Your task to perform on an android device: Go to Yahoo.com Image 0: 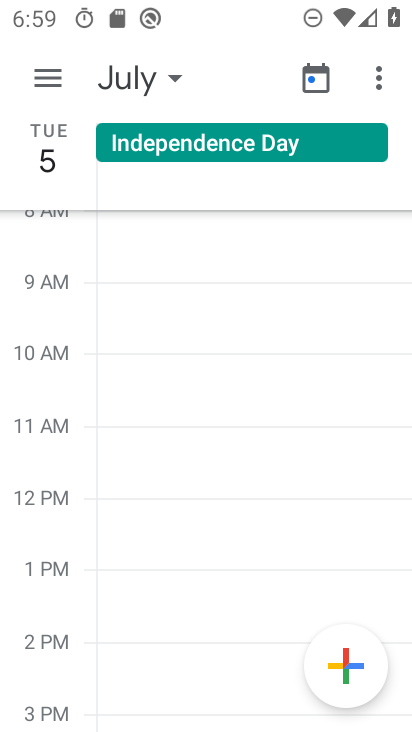
Step 0: press home button
Your task to perform on an android device: Go to Yahoo.com Image 1: 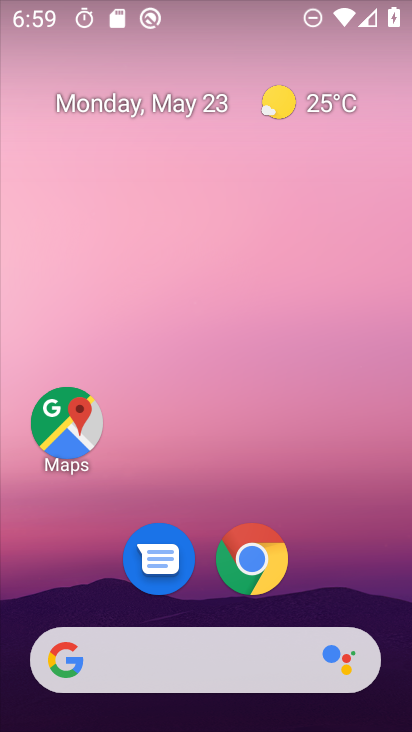
Step 1: drag from (399, 645) to (287, 76)
Your task to perform on an android device: Go to Yahoo.com Image 2: 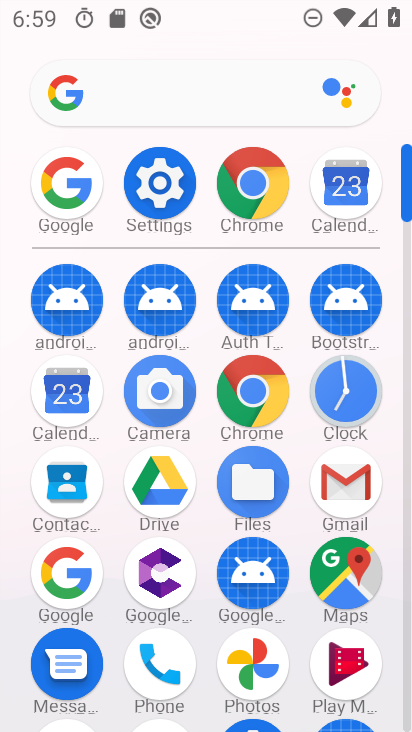
Step 2: click (254, 405)
Your task to perform on an android device: Go to Yahoo.com Image 3: 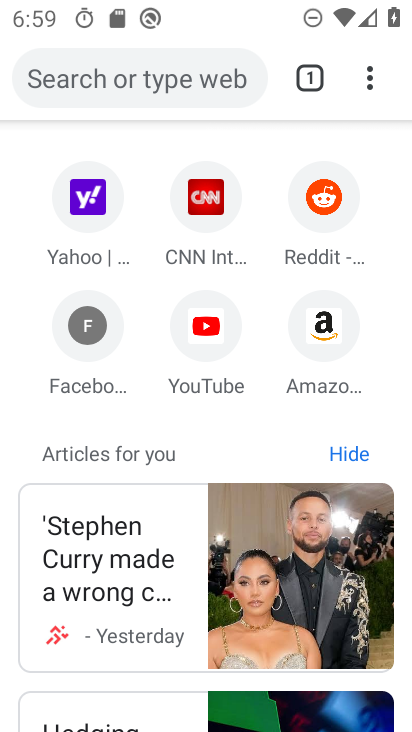
Step 3: click (50, 202)
Your task to perform on an android device: Go to Yahoo.com Image 4: 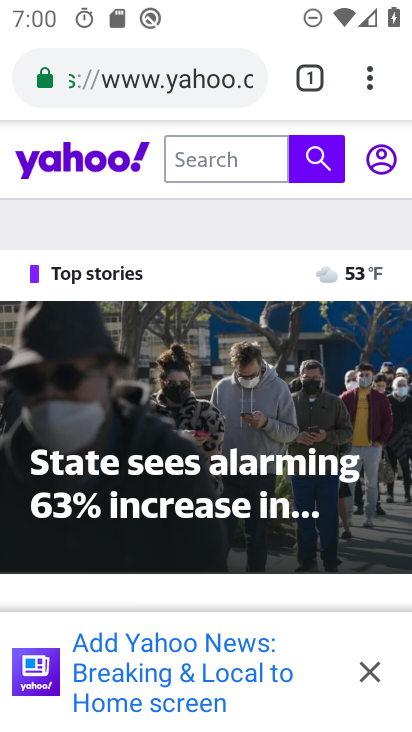
Step 4: task complete